Your task to perform on an android device: Search for a 100 ft extension cord Image 0: 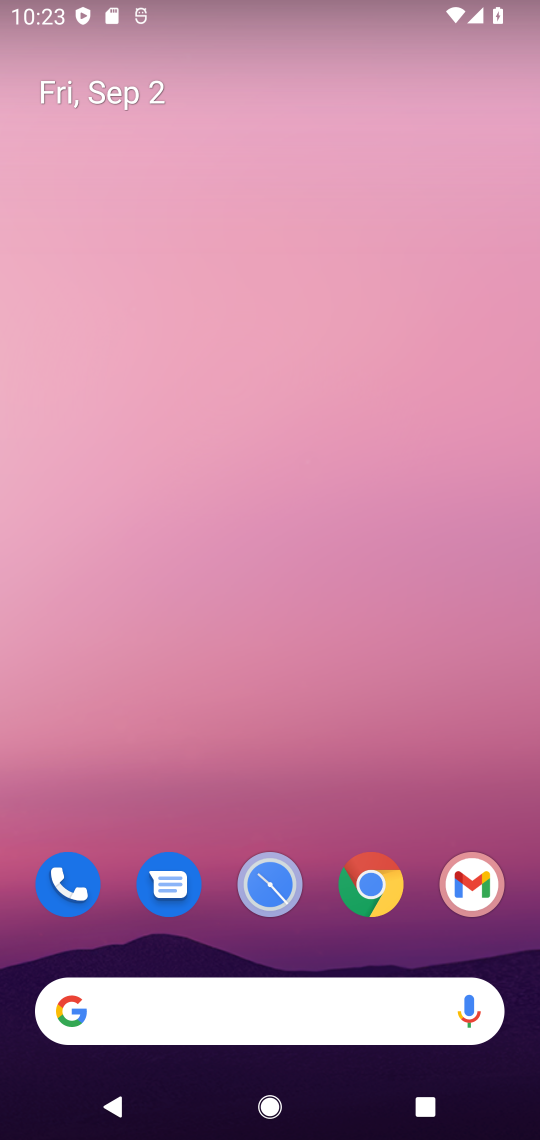
Step 0: drag from (331, 978) to (386, 64)
Your task to perform on an android device: Search for a 100 ft extension cord Image 1: 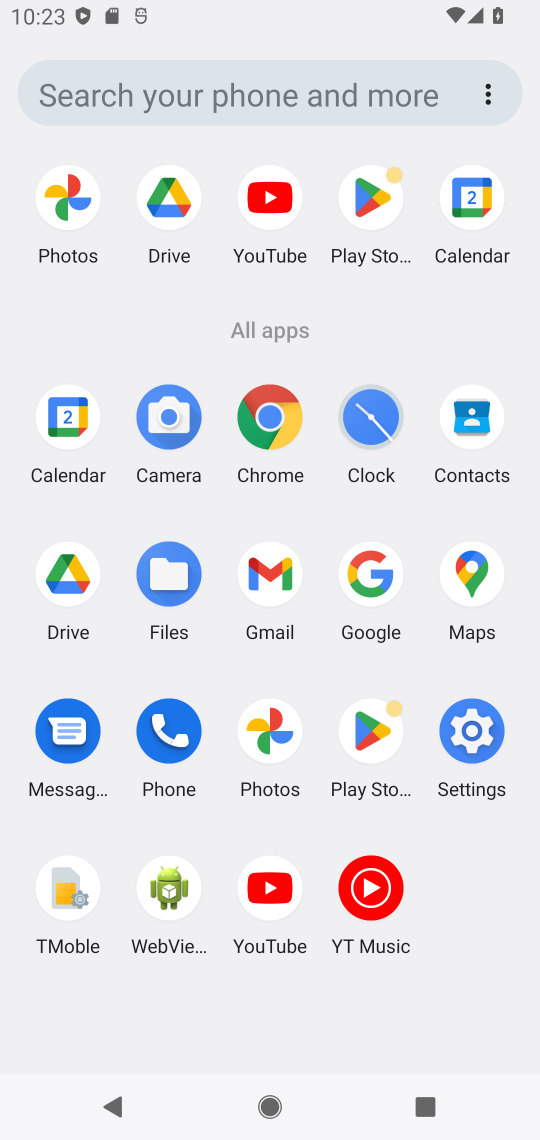
Step 1: click (268, 436)
Your task to perform on an android device: Search for a 100 ft extension cord Image 2: 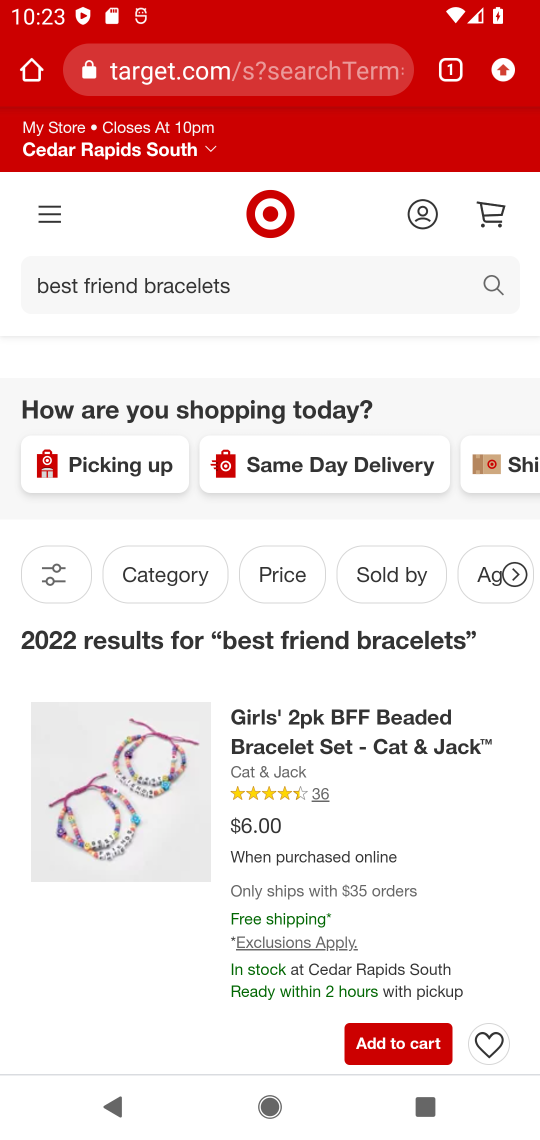
Step 2: click (295, 71)
Your task to perform on an android device: Search for a 100 ft extension cord Image 3: 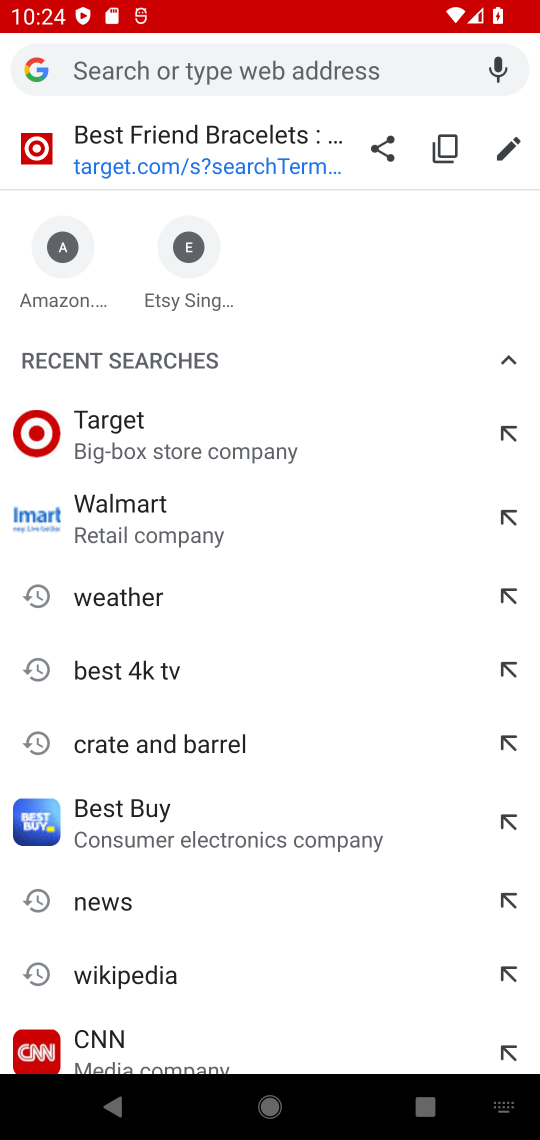
Step 3: type "100ft extension cord"
Your task to perform on an android device: Search for a 100 ft extension cord Image 4: 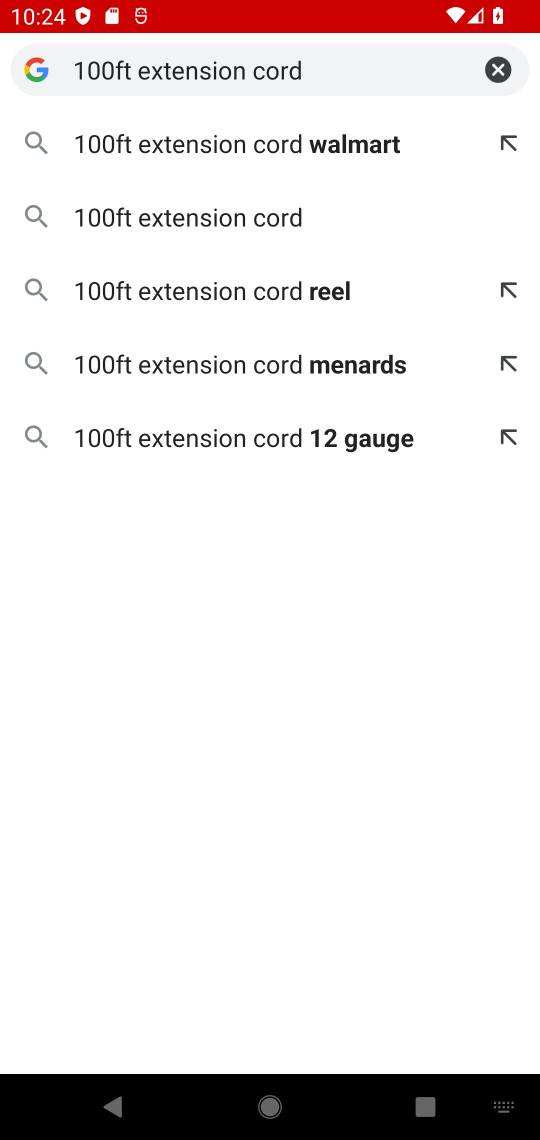
Step 4: click (302, 228)
Your task to perform on an android device: Search for a 100 ft extension cord Image 5: 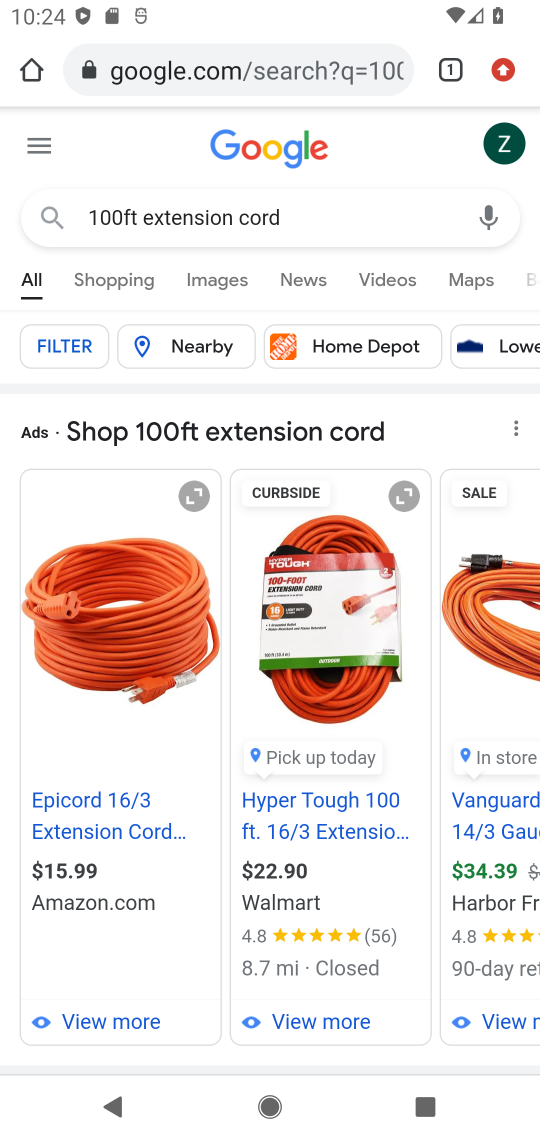
Step 5: task complete